Your task to perform on an android device: What's the weather going to be this weekend? Image 0: 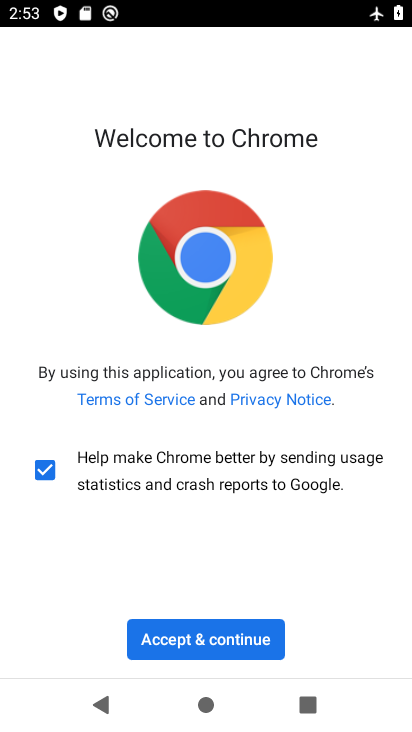
Step 0: press home button
Your task to perform on an android device: What's the weather going to be this weekend? Image 1: 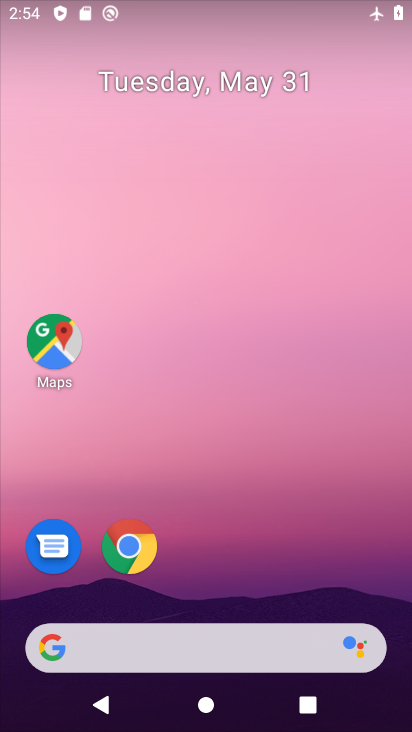
Step 1: drag from (216, 589) to (210, 246)
Your task to perform on an android device: What's the weather going to be this weekend? Image 2: 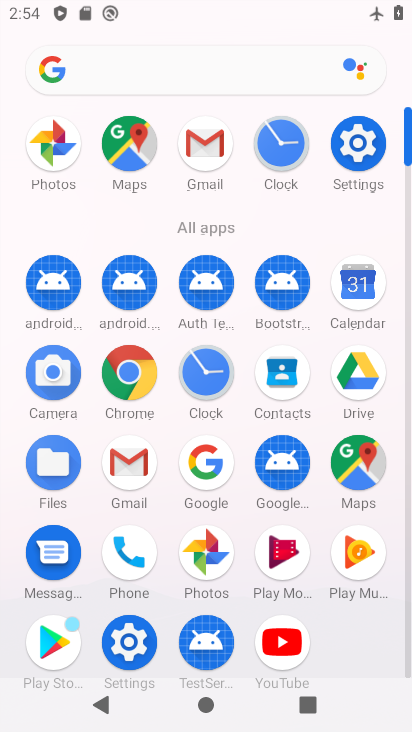
Step 2: click (202, 488)
Your task to perform on an android device: What's the weather going to be this weekend? Image 3: 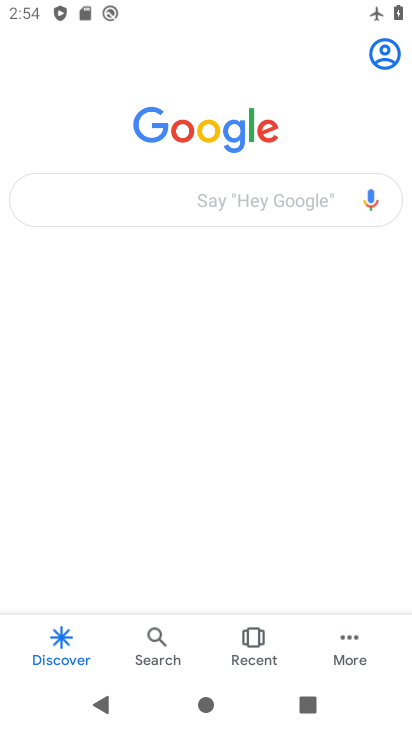
Step 3: click (180, 194)
Your task to perform on an android device: What's the weather going to be this weekend? Image 4: 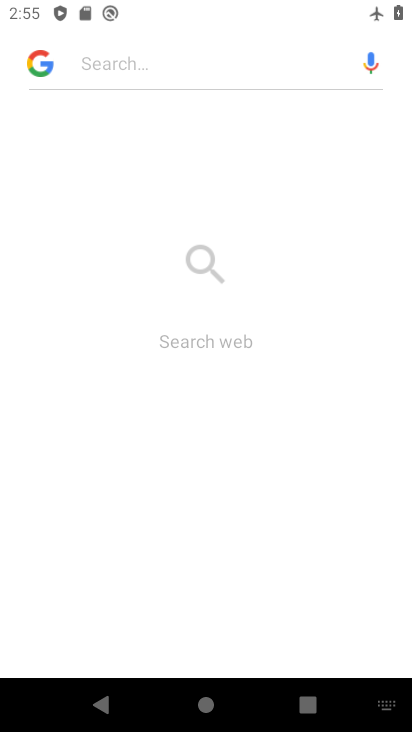
Step 4: click (135, 58)
Your task to perform on an android device: What's the weather going to be this weekend? Image 5: 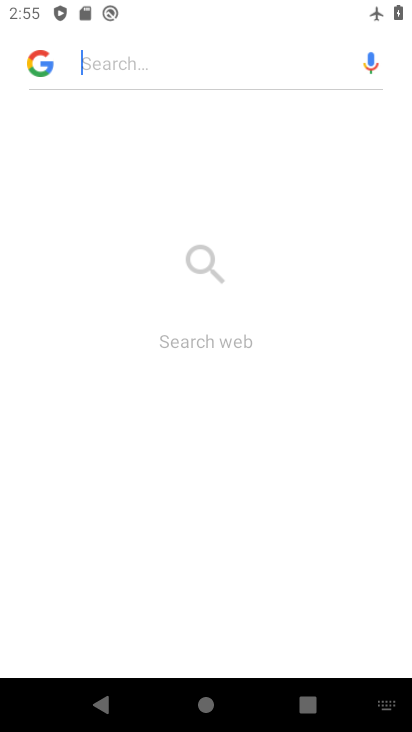
Step 5: press back button
Your task to perform on an android device: What's the weather going to be this weekend? Image 6: 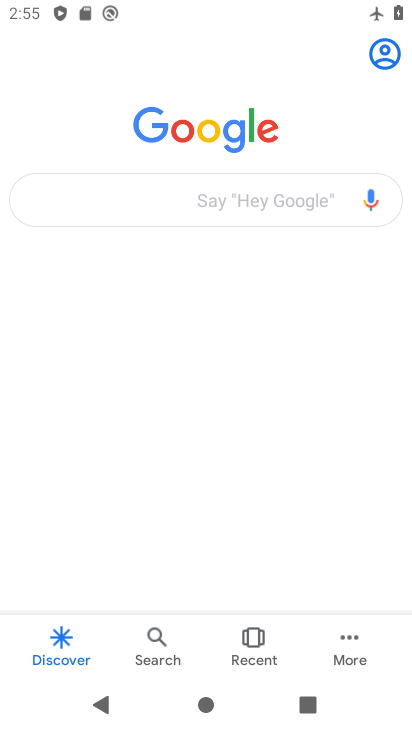
Step 6: click (268, 209)
Your task to perform on an android device: What's the weather going to be this weekend? Image 7: 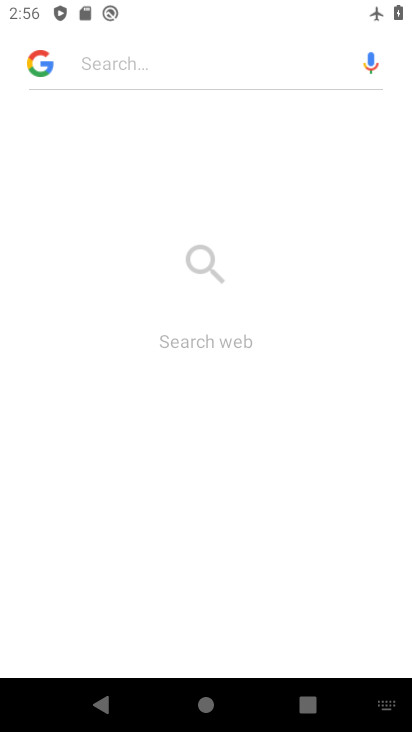
Step 7: press back button
Your task to perform on an android device: What's the weather going to be this weekend? Image 8: 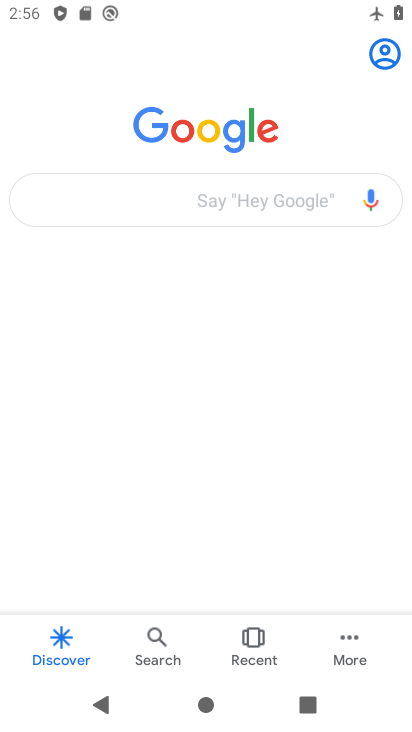
Step 8: click (259, 209)
Your task to perform on an android device: What's the weather going to be this weekend? Image 9: 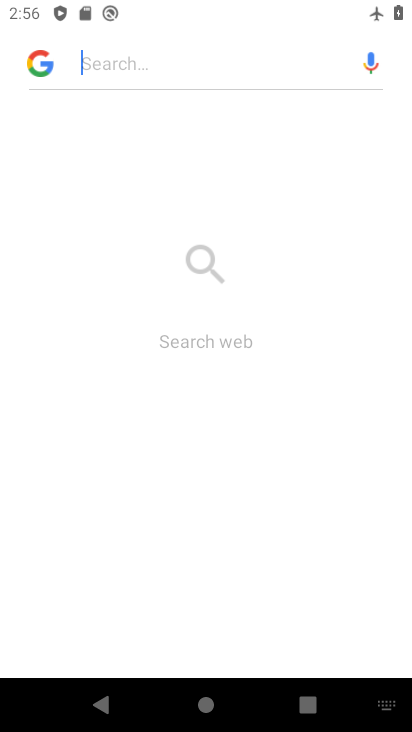
Step 9: click (145, 66)
Your task to perform on an android device: What's the weather going to be this weekend? Image 10: 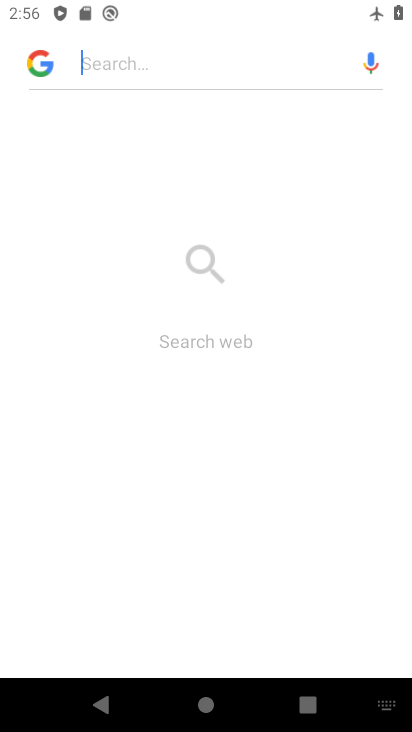
Step 10: task complete